Your task to perform on an android device: Open settings on Google Maps Image 0: 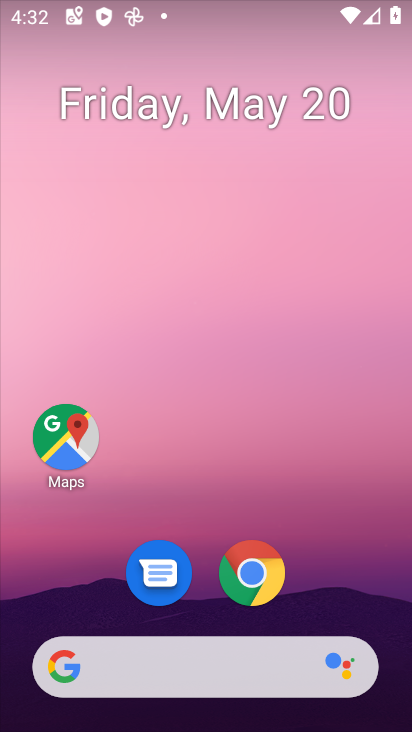
Step 0: click (68, 441)
Your task to perform on an android device: Open settings on Google Maps Image 1: 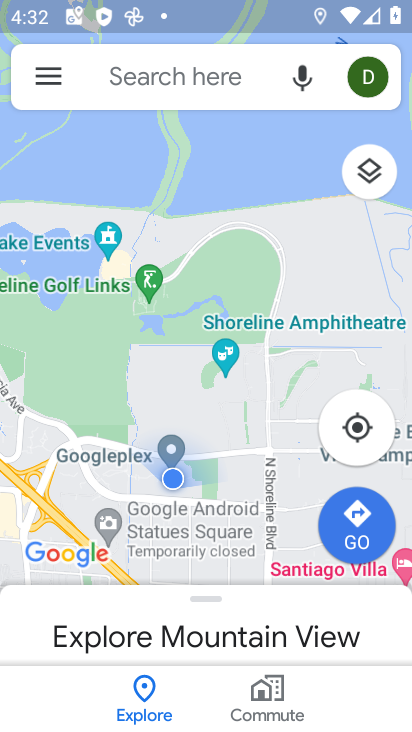
Step 1: click (48, 77)
Your task to perform on an android device: Open settings on Google Maps Image 2: 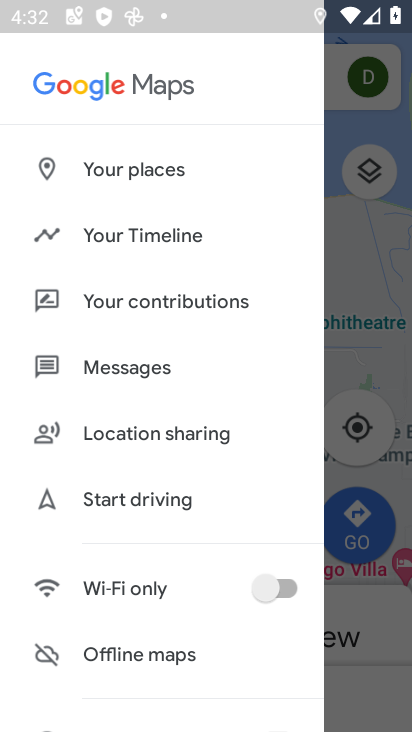
Step 2: drag from (212, 633) to (230, 245)
Your task to perform on an android device: Open settings on Google Maps Image 3: 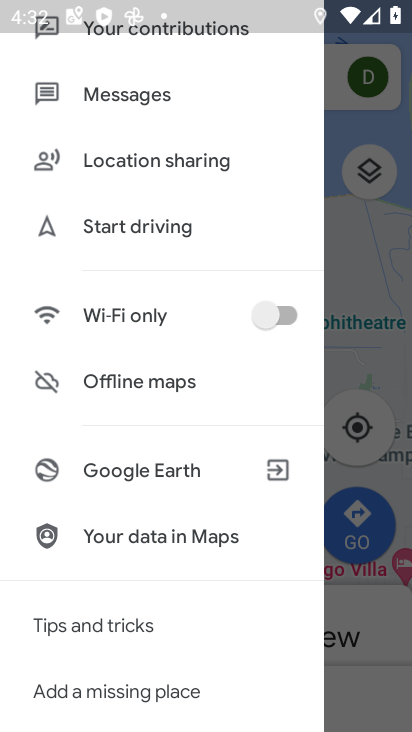
Step 3: drag from (252, 590) to (229, 233)
Your task to perform on an android device: Open settings on Google Maps Image 4: 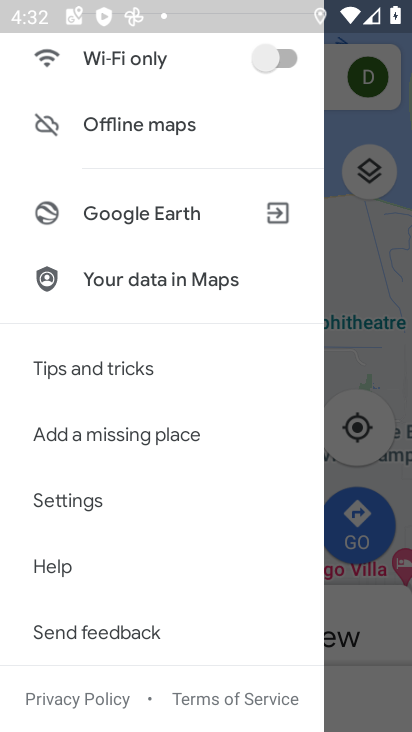
Step 4: click (60, 491)
Your task to perform on an android device: Open settings on Google Maps Image 5: 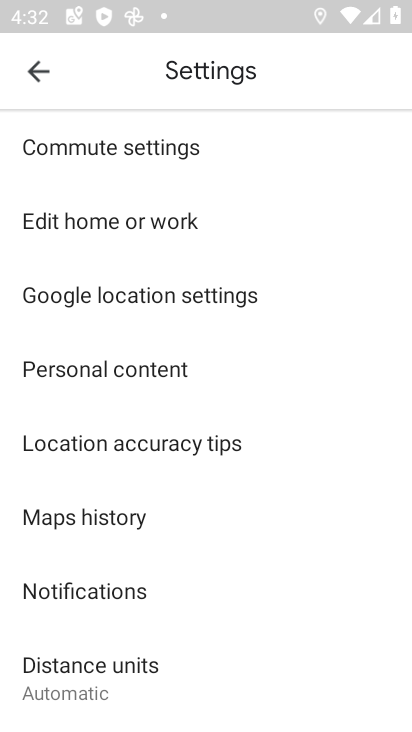
Step 5: task complete